Your task to perform on an android device: Go to CNN.com Image 0: 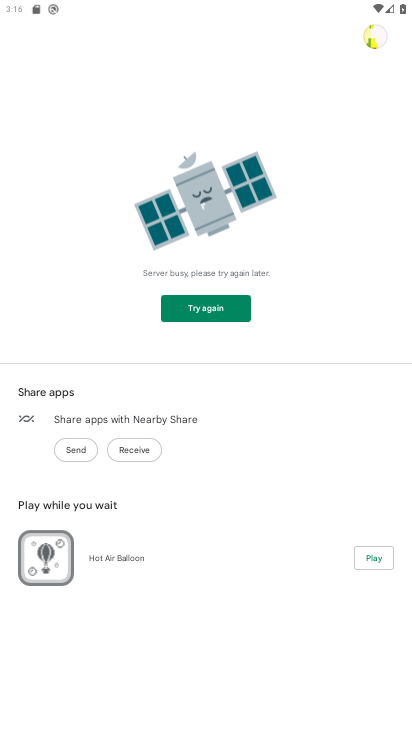
Step 0: press home button
Your task to perform on an android device: Go to CNN.com Image 1: 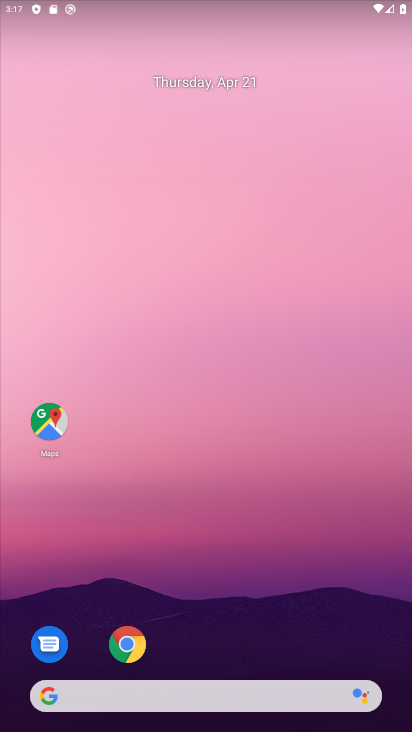
Step 1: click (133, 647)
Your task to perform on an android device: Go to CNN.com Image 2: 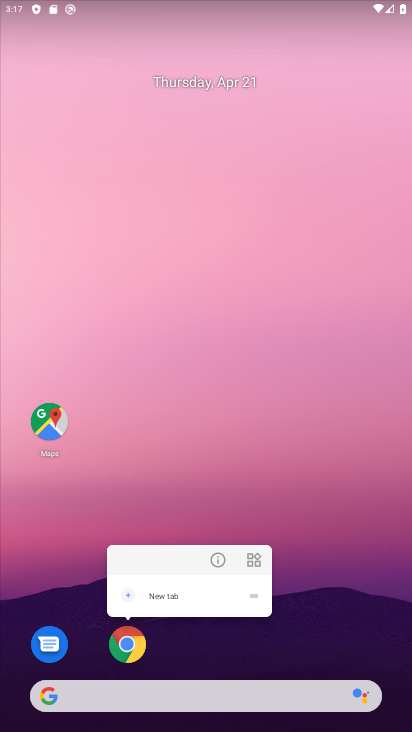
Step 2: click (128, 641)
Your task to perform on an android device: Go to CNN.com Image 3: 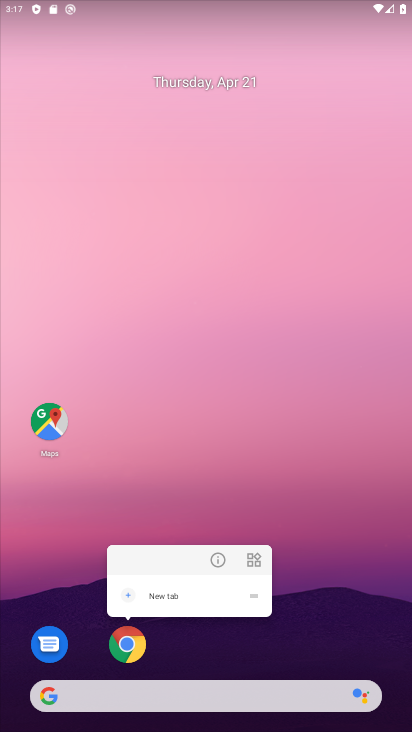
Step 3: click (127, 636)
Your task to perform on an android device: Go to CNN.com Image 4: 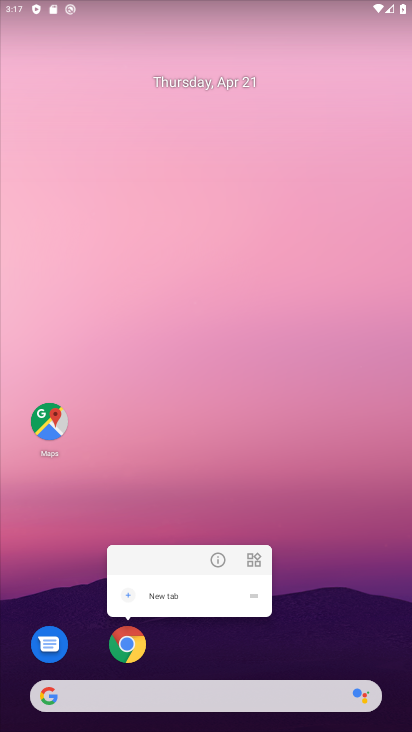
Step 4: click (138, 640)
Your task to perform on an android device: Go to CNN.com Image 5: 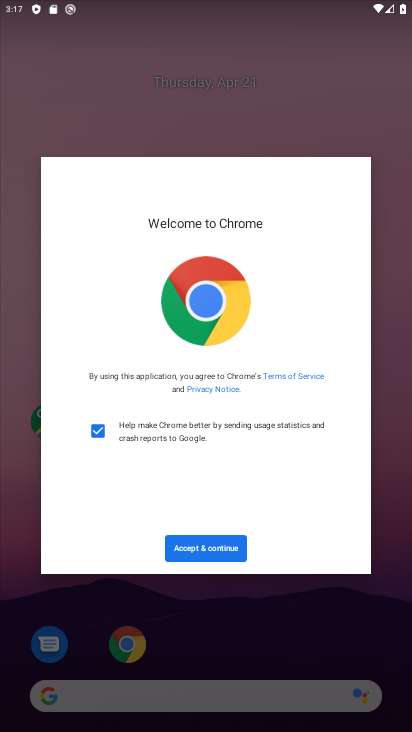
Step 5: click (200, 548)
Your task to perform on an android device: Go to CNN.com Image 6: 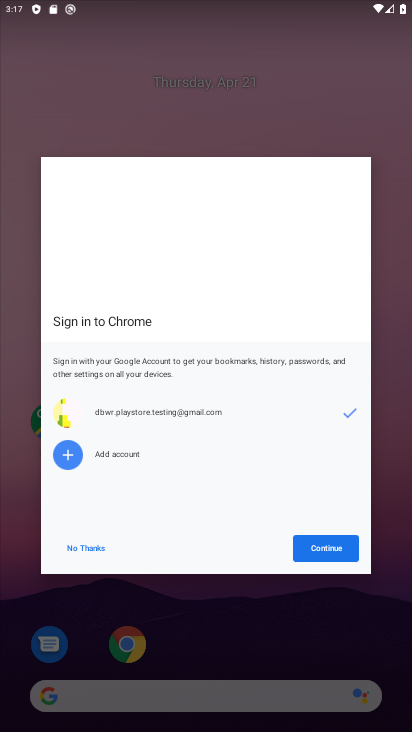
Step 6: click (302, 545)
Your task to perform on an android device: Go to CNN.com Image 7: 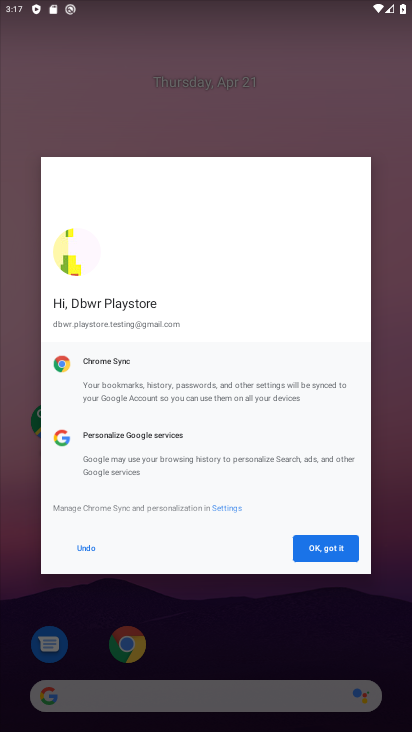
Step 7: click (302, 545)
Your task to perform on an android device: Go to CNN.com Image 8: 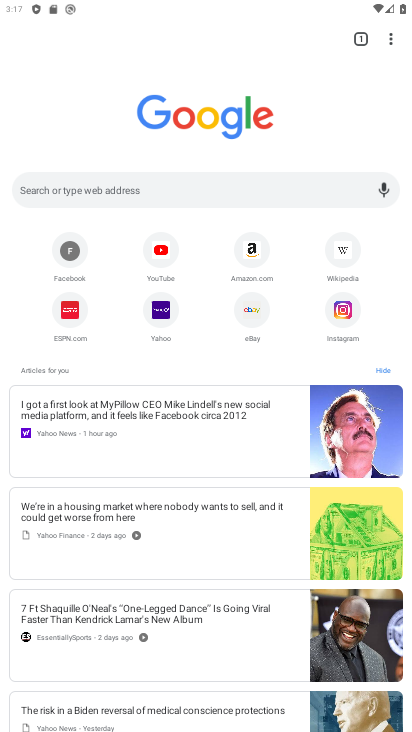
Step 8: click (212, 190)
Your task to perform on an android device: Go to CNN.com Image 9: 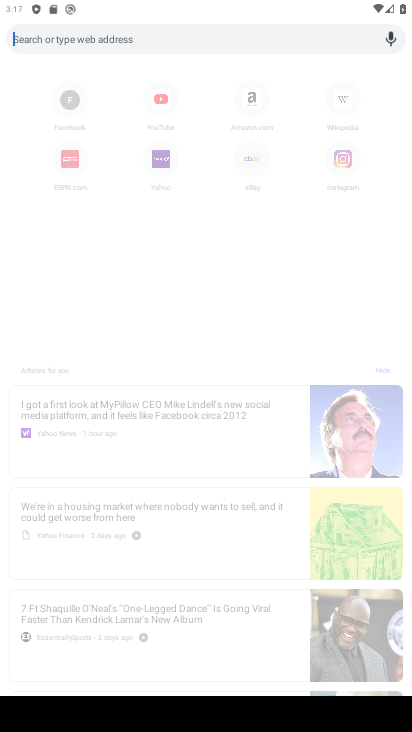
Step 9: type "cnn.com"
Your task to perform on an android device: Go to CNN.com Image 10: 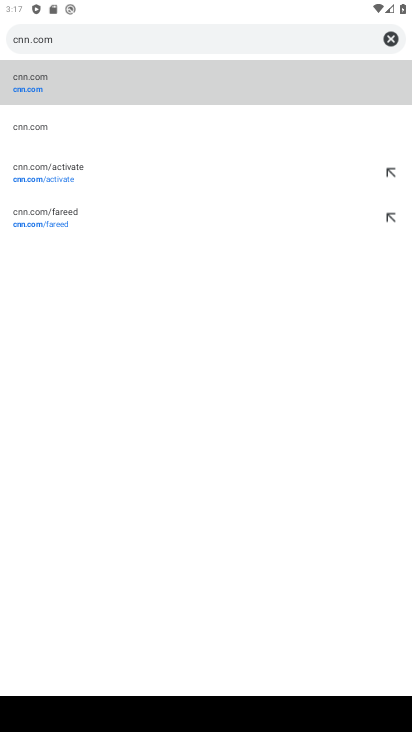
Step 10: click (100, 87)
Your task to perform on an android device: Go to CNN.com Image 11: 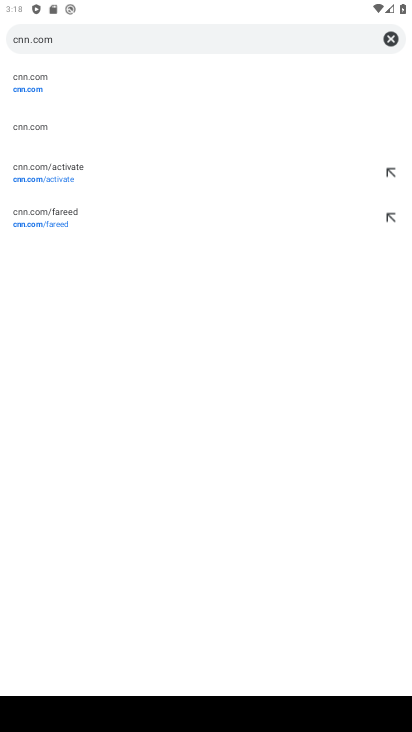
Step 11: click (41, 101)
Your task to perform on an android device: Go to CNN.com Image 12: 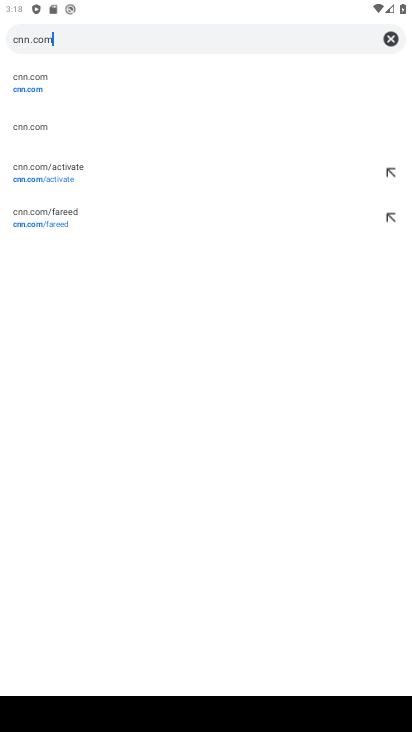
Step 12: click (44, 77)
Your task to perform on an android device: Go to CNN.com Image 13: 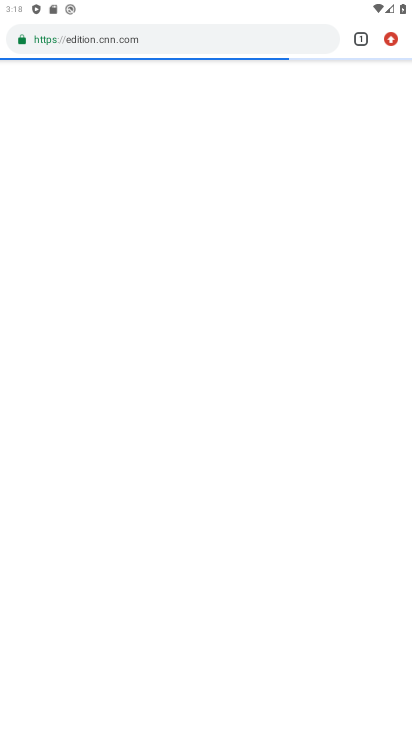
Step 13: task complete